Your task to perform on an android device: change the clock display to show seconds Image 0: 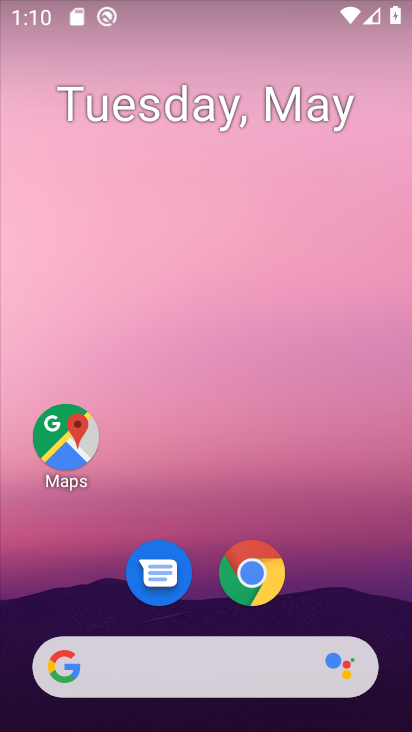
Step 0: drag from (369, 573) to (312, 171)
Your task to perform on an android device: change the clock display to show seconds Image 1: 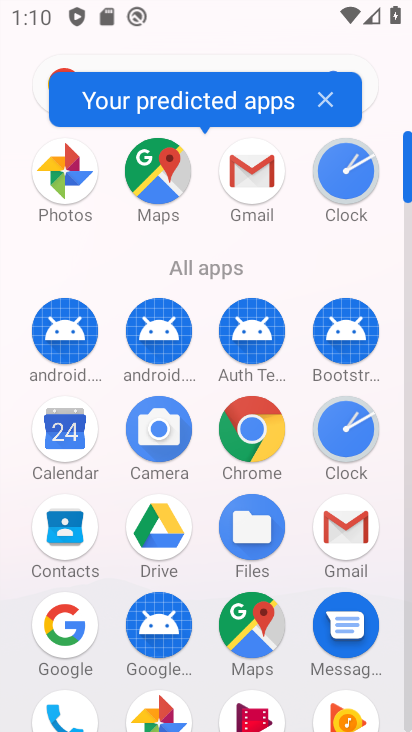
Step 1: click (361, 426)
Your task to perform on an android device: change the clock display to show seconds Image 2: 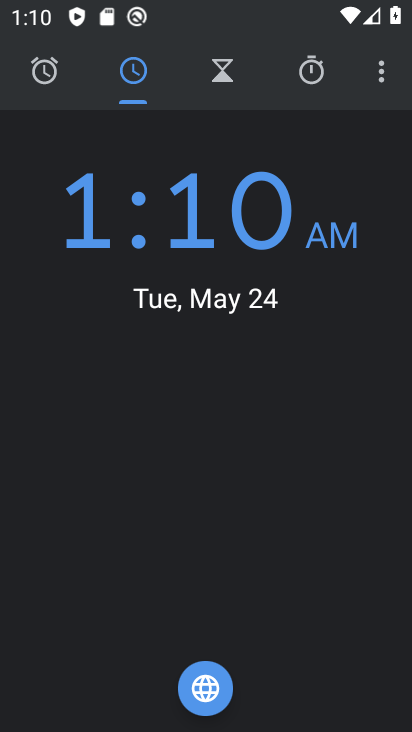
Step 2: click (384, 77)
Your task to perform on an android device: change the clock display to show seconds Image 3: 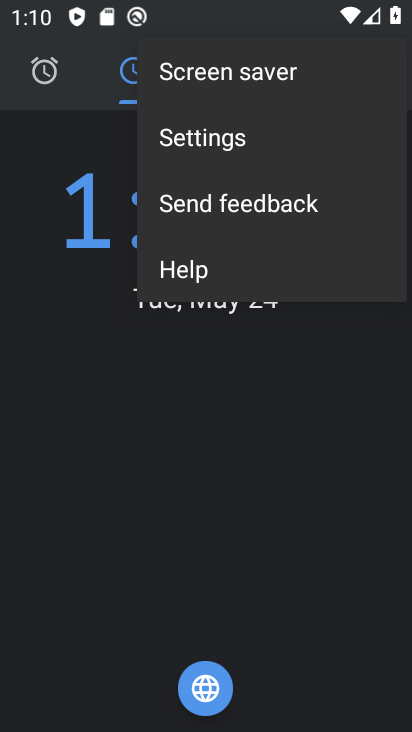
Step 3: click (241, 153)
Your task to perform on an android device: change the clock display to show seconds Image 4: 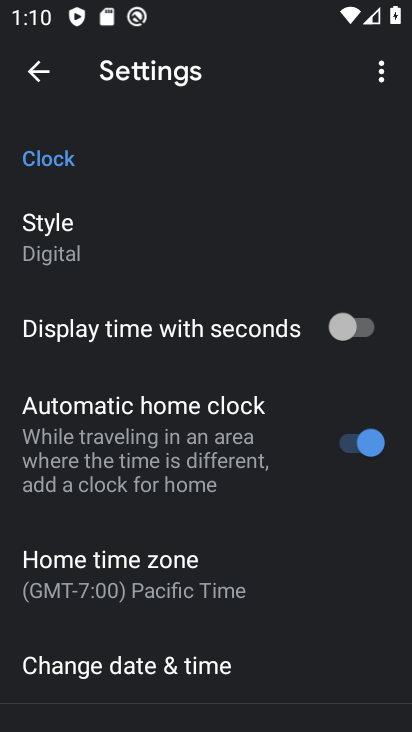
Step 4: click (363, 328)
Your task to perform on an android device: change the clock display to show seconds Image 5: 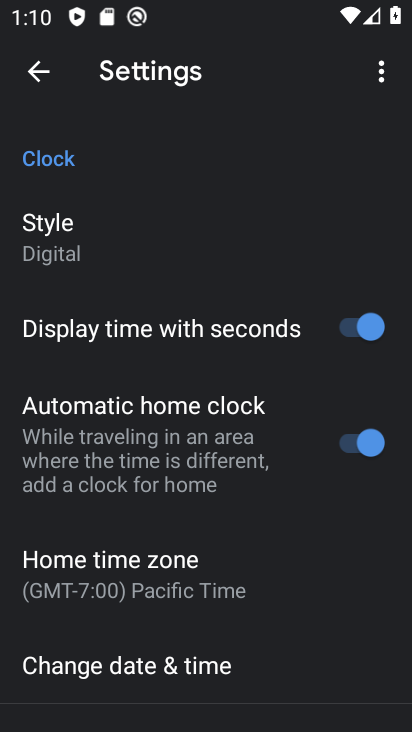
Step 5: task complete